Your task to perform on an android device: Open Google Chrome Image 0: 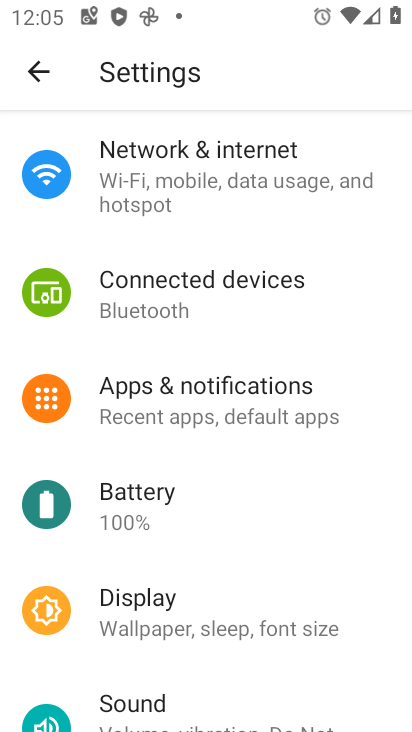
Step 0: press home button
Your task to perform on an android device: Open Google Chrome Image 1: 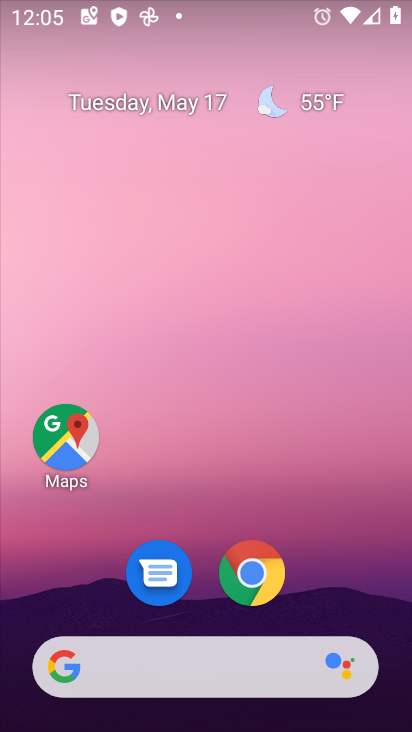
Step 1: click (269, 566)
Your task to perform on an android device: Open Google Chrome Image 2: 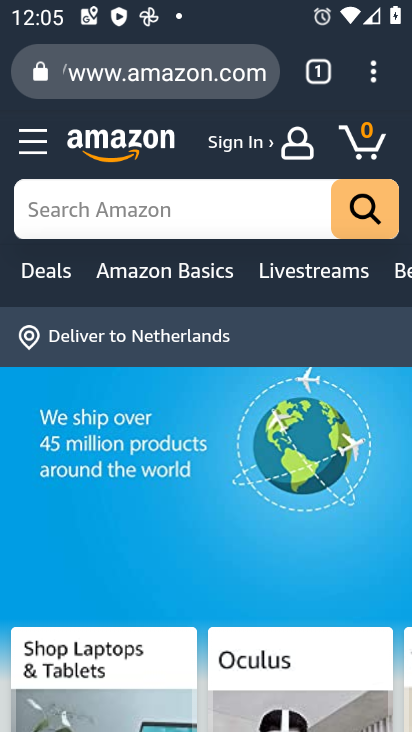
Step 2: task complete